Your task to perform on an android device: Open calendar and show me the third week of next month Image 0: 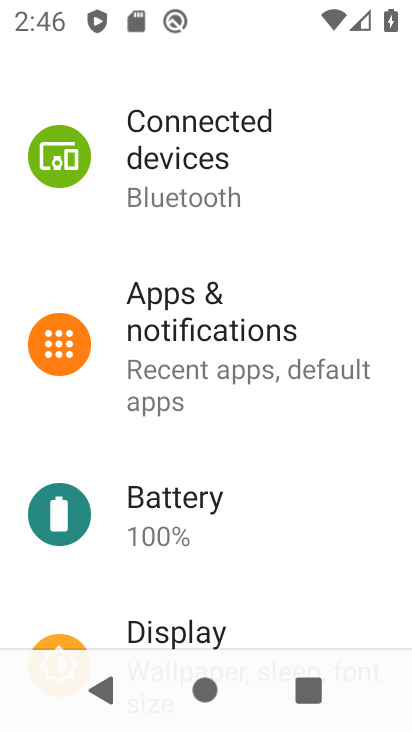
Step 0: press home button
Your task to perform on an android device: Open calendar and show me the third week of next month Image 1: 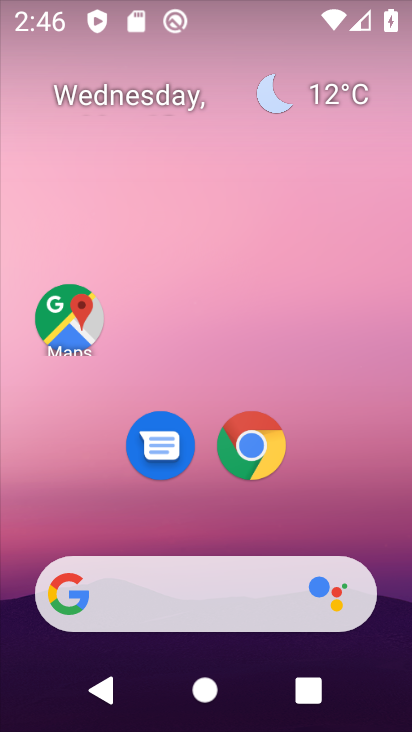
Step 1: drag from (357, 483) to (308, 93)
Your task to perform on an android device: Open calendar and show me the third week of next month Image 2: 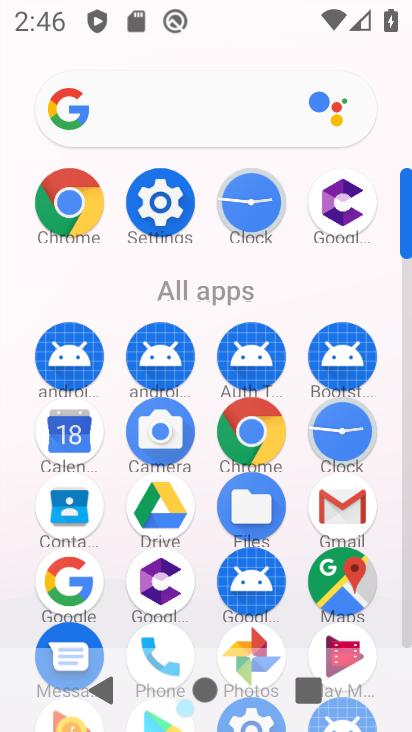
Step 2: click (68, 442)
Your task to perform on an android device: Open calendar and show me the third week of next month Image 3: 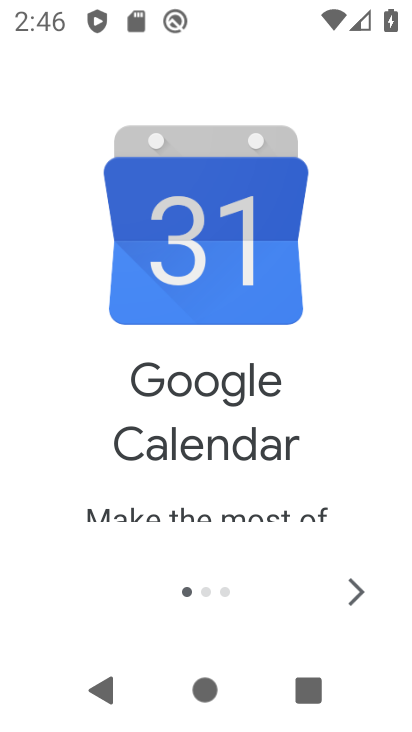
Step 3: click (358, 584)
Your task to perform on an android device: Open calendar and show me the third week of next month Image 4: 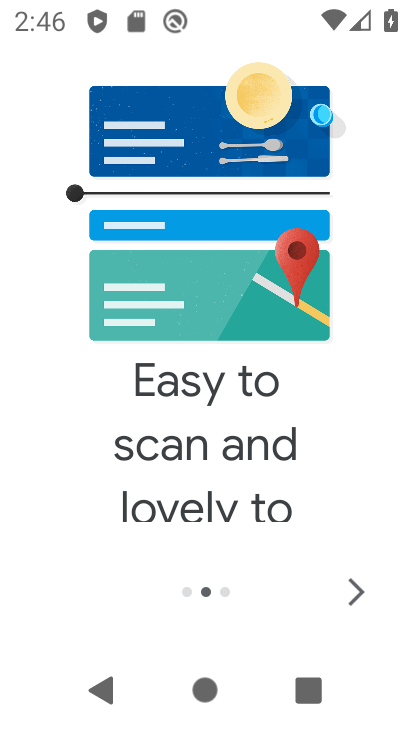
Step 4: click (358, 583)
Your task to perform on an android device: Open calendar and show me the third week of next month Image 5: 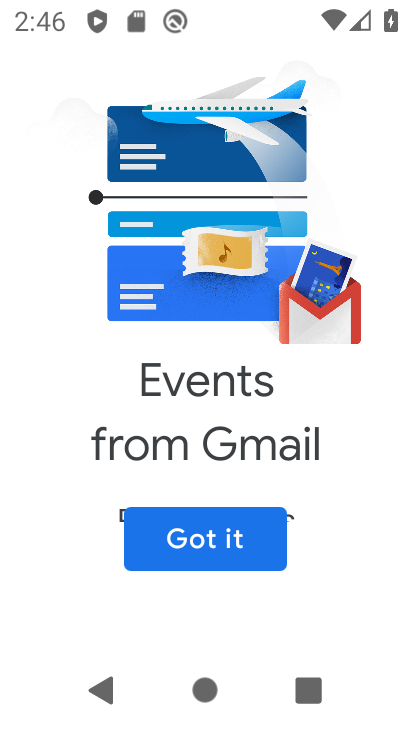
Step 5: click (265, 531)
Your task to perform on an android device: Open calendar and show me the third week of next month Image 6: 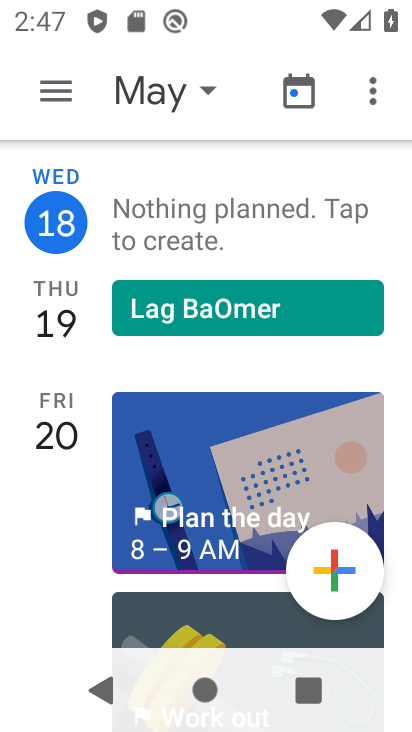
Step 6: click (56, 101)
Your task to perform on an android device: Open calendar and show me the third week of next month Image 7: 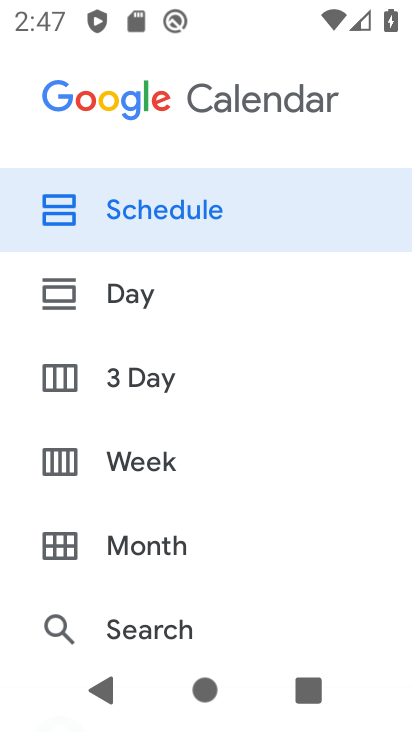
Step 7: click (146, 446)
Your task to perform on an android device: Open calendar and show me the third week of next month Image 8: 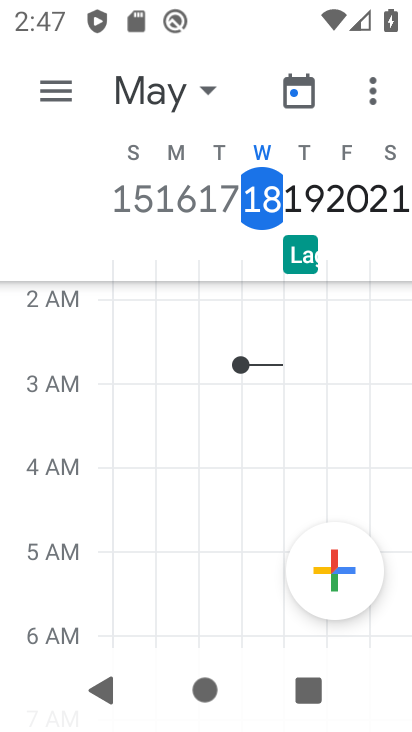
Step 8: click (171, 94)
Your task to perform on an android device: Open calendar and show me the third week of next month Image 9: 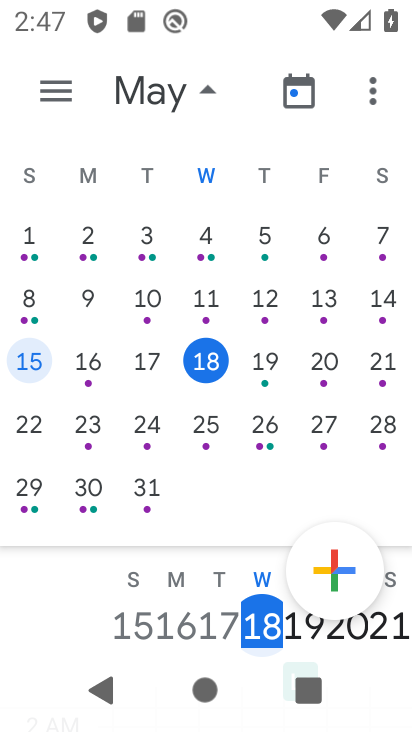
Step 9: drag from (381, 319) to (0, 289)
Your task to perform on an android device: Open calendar and show me the third week of next month Image 10: 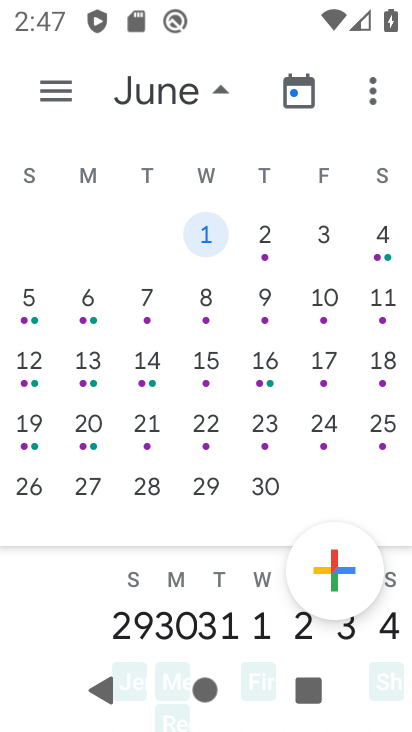
Step 10: click (145, 426)
Your task to perform on an android device: Open calendar and show me the third week of next month Image 11: 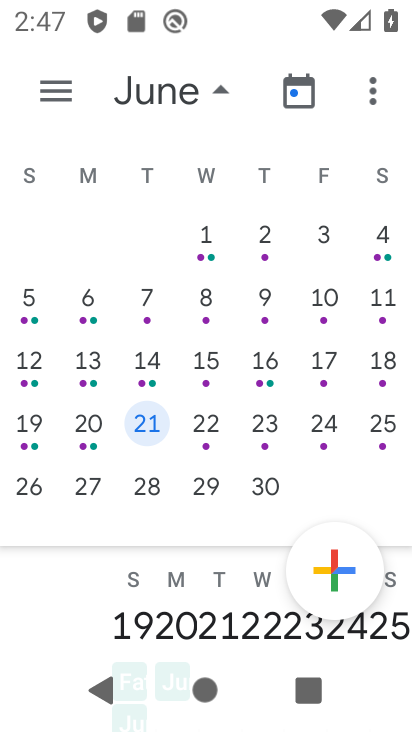
Step 11: click (76, 430)
Your task to perform on an android device: Open calendar and show me the third week of next month Image 12: 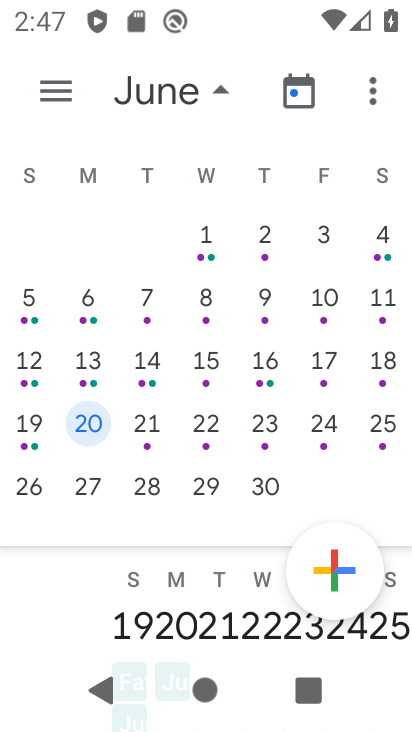
Step 12: drag from (208, 657) to (206, 355)
Your task to perform on an android device: Open calendar and show me the third week of next month Image 13: 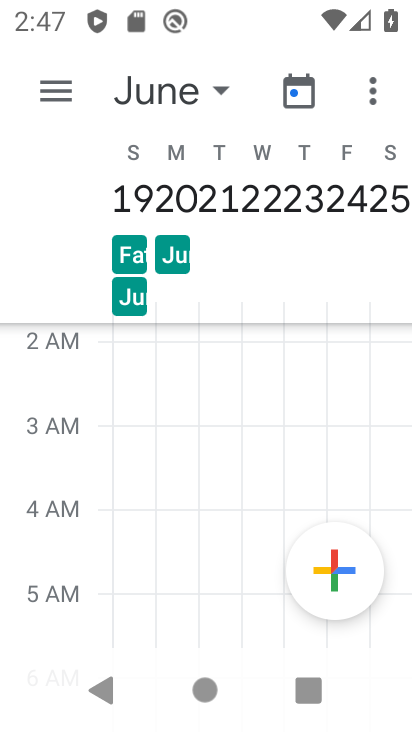
Step 13: drag from (237, 538) to (238, 316)
Your task to perform on an android device: Open calendar and show me the third week of next month Image 14: 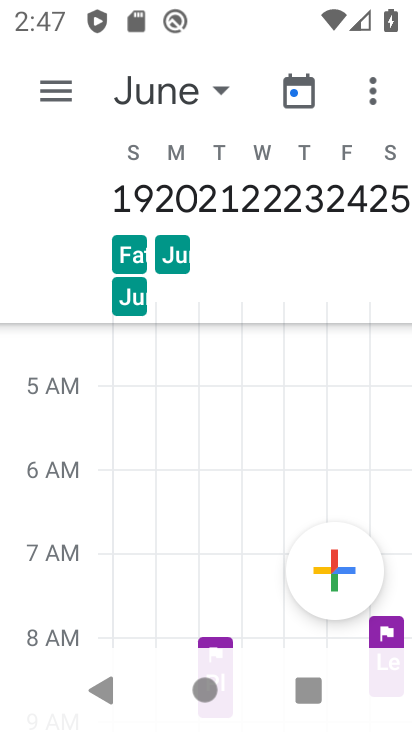
Step 14: click (237, 295)
Your task to perform on an android device: Open calendar and show me the third week of next month Image 15: 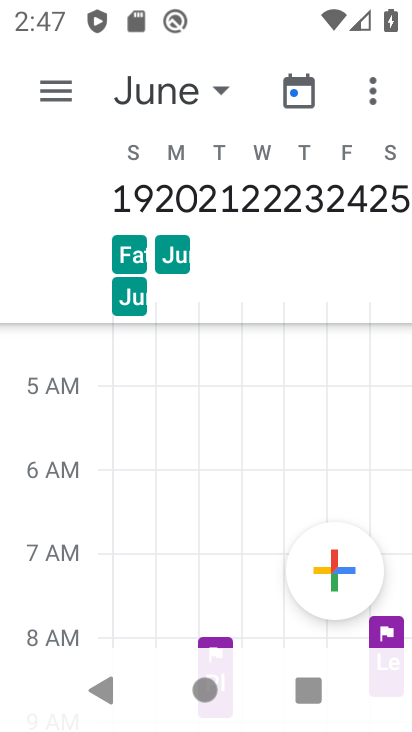
Step 15: task complete